Your task to perform on an android device: Open Reddit.com Image 0: 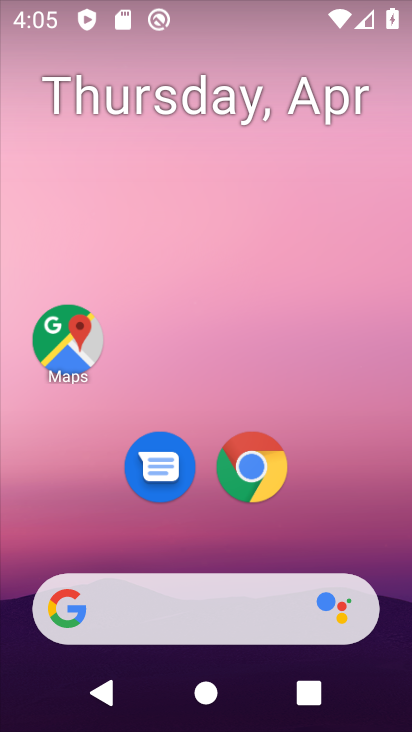
Step 0: click (240, 481)
Your task to perform on an android device: Open Reddit.com Image 1: 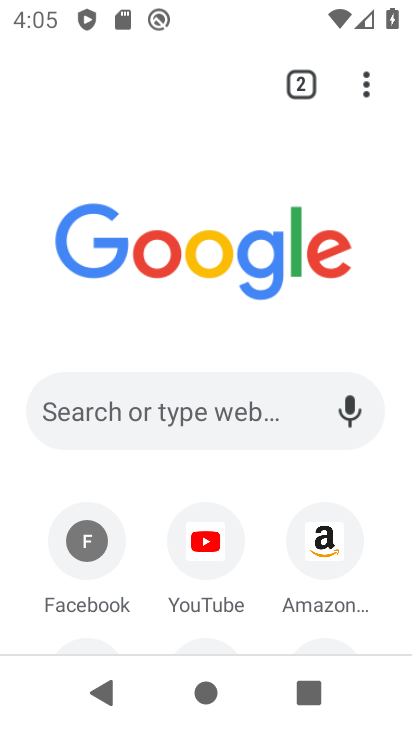
Step 1: click (202, 375)
Your task to perform on an android device: Open Reddit.com Image 2: 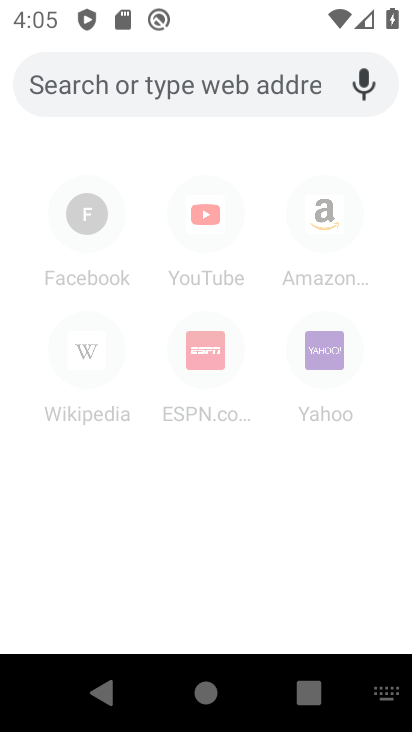
Step 2: type "reddit.com"
Your task to perform on an android device: Open Reddit.com Image 3: 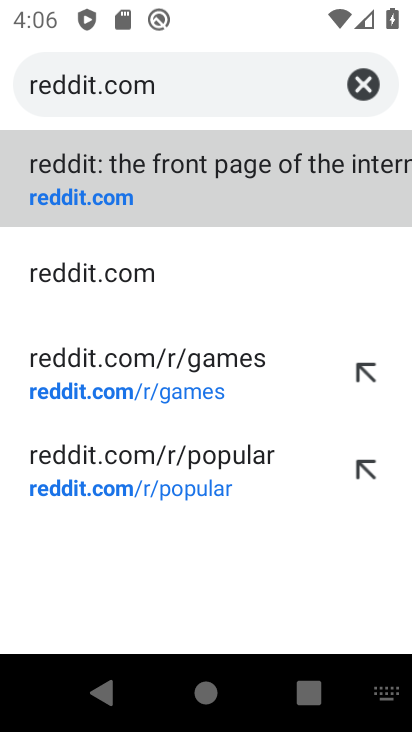
Step 3: click (111, 295)
Your task to perform on an android device: Open Reddit.com Image 4: 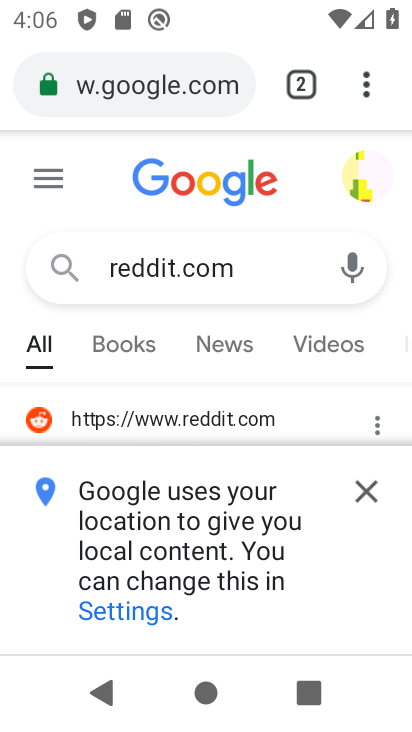
Step 4: task complete